Your task to perform on an android device: Clear the shopping cart on amazon. Search for logitech g903 on amazon, select the first entry, add it to the cart, then select checkout. Image 0: 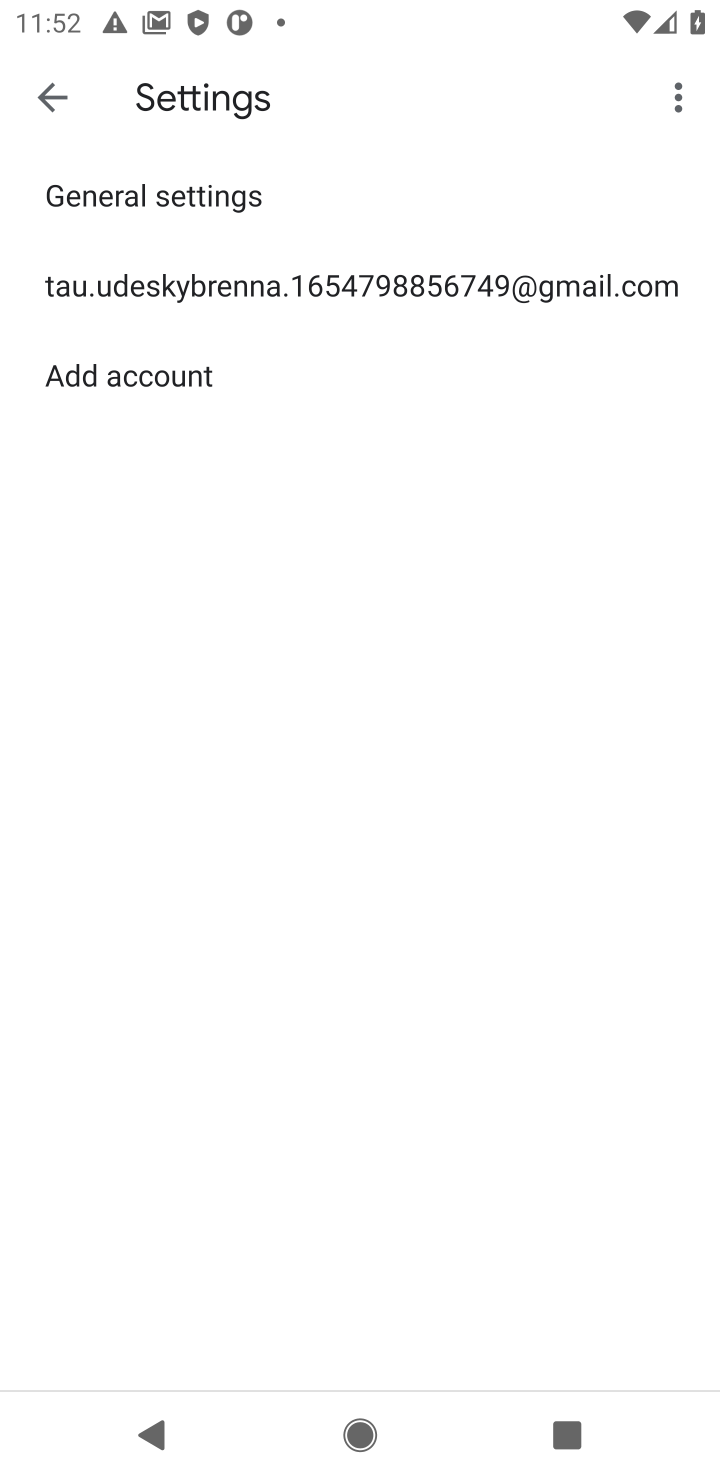
Step 0: press home button
Your task to perform on an android device: Clear the shopping cart on amazon. Search for logitech g903 on amazon, select the first entry, add it to the cart, then select checkout. Image 1: 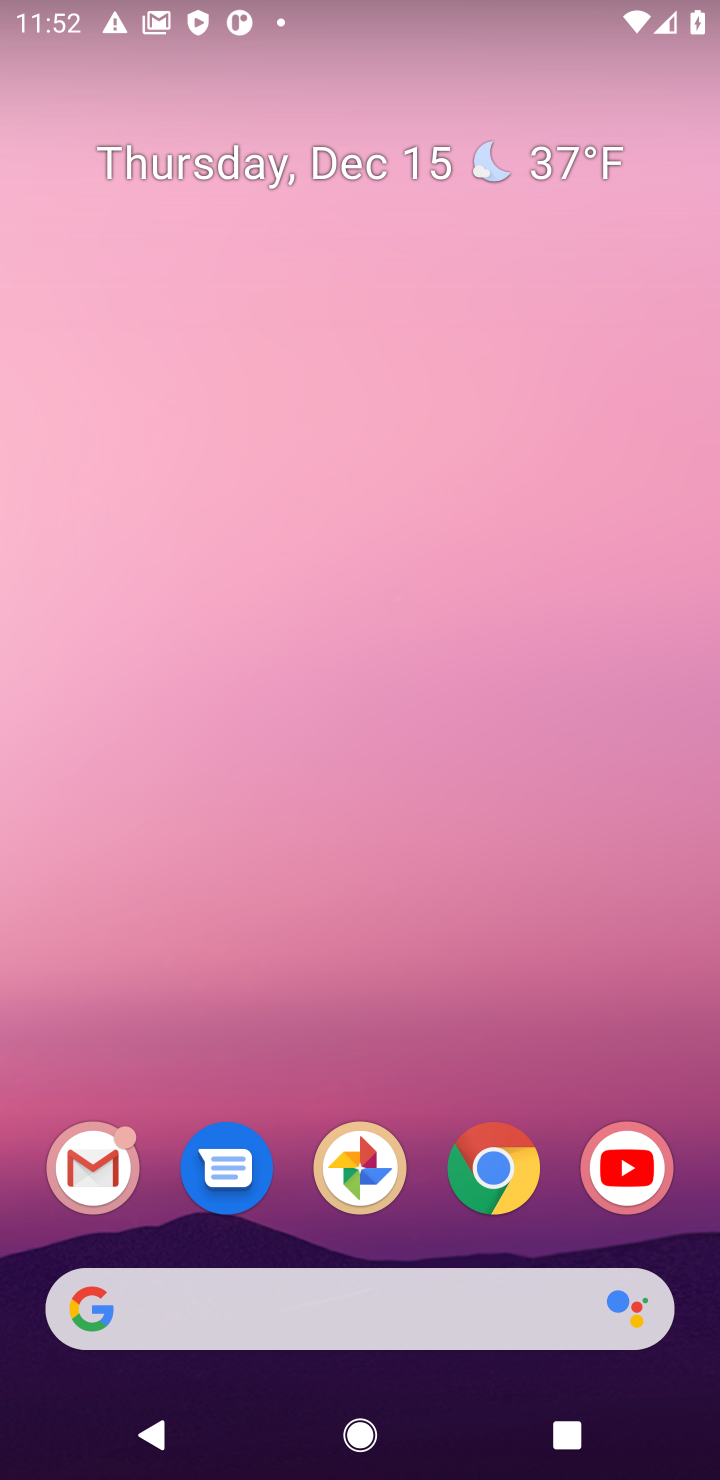
Step 1: click (502, 1153)
Your task to perform on an android device: Clear the shopping cart on amazon. Search for logitech g903 on amazon, select the first entry, add it to the cart, then select checkout. Image 2: 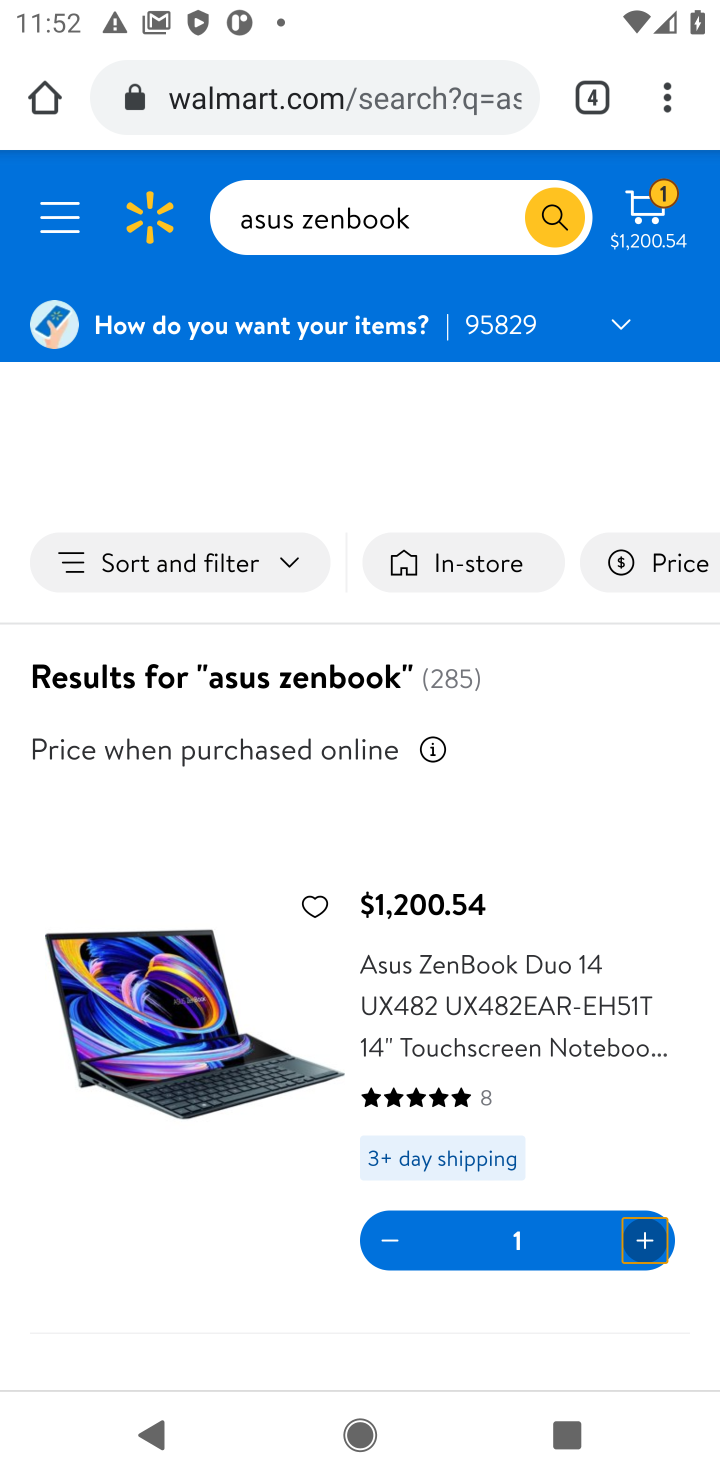
Step 2: click (387, 96)
Your task to perform on an android device: Clear the shopping cart on amazon. Search for logitech g903 on amazon, select the first entry, add it to the cart, then select checkout. Image 3: 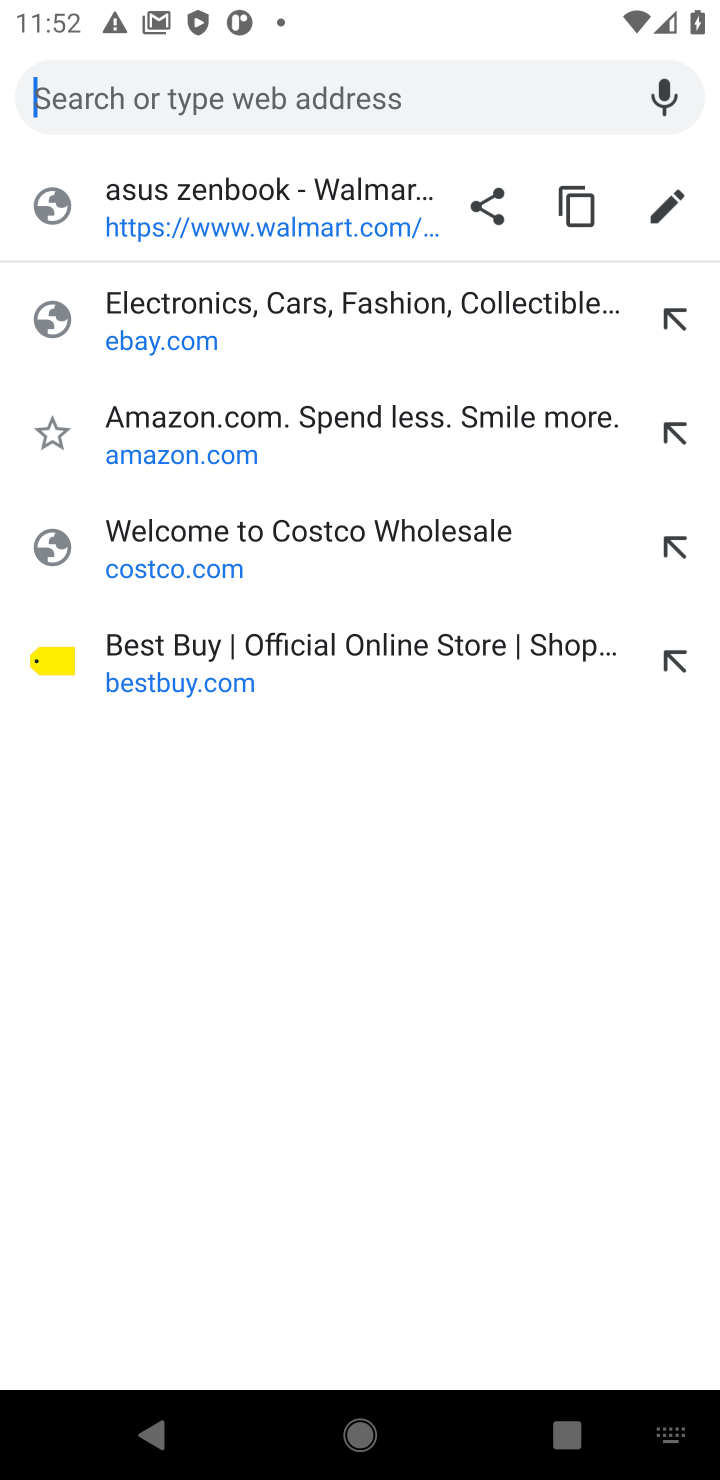
Step 3: click (274, 433)
Your task to perform on an android device: Clear the shopping cart on amazon. Search for logitech g903 on amazon, select the first entry, add it to the cart, then select checkout. Image 4: 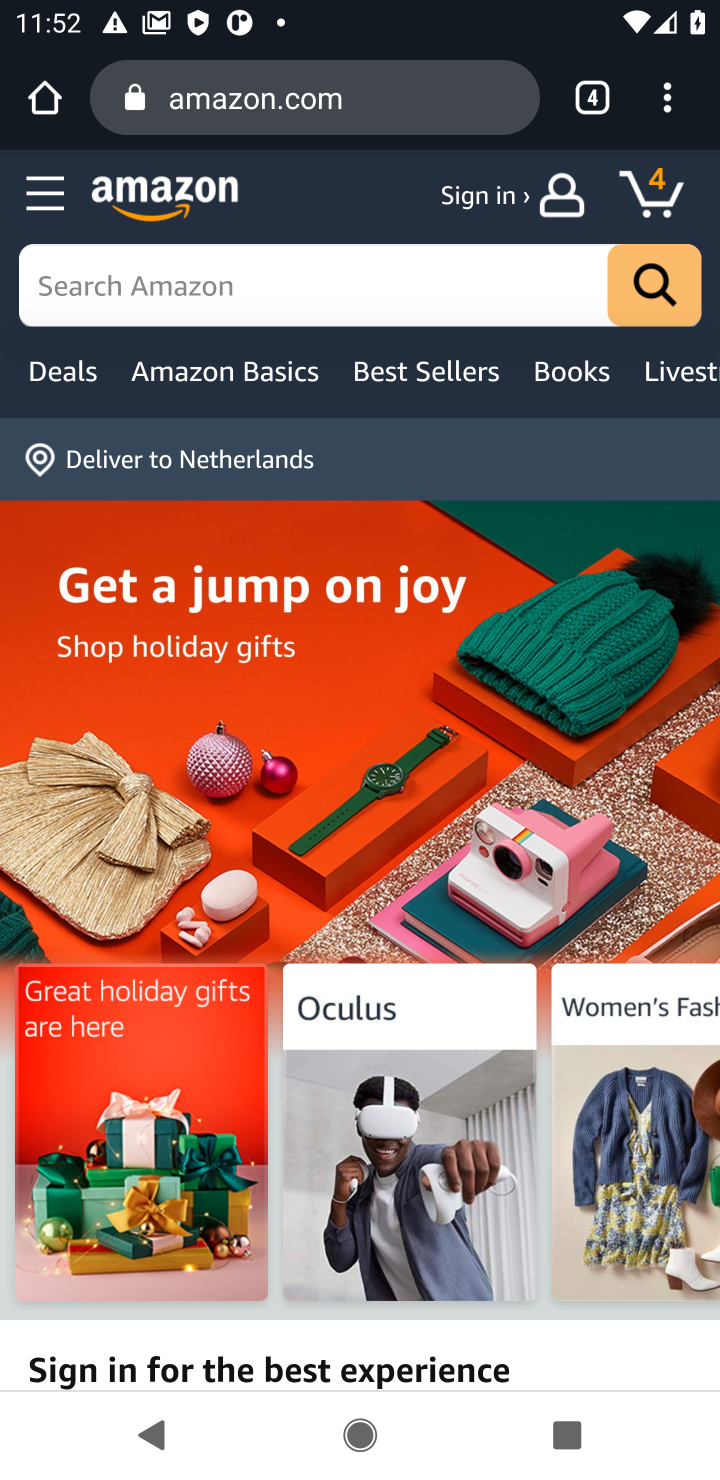
Step 4: click (651, 179)
Your task to perform on an android device: Clear the shopping cart on amazon. Search for logitech g903 on amazon, select the first entry, add it to the cart, then select checkout. Image 5: 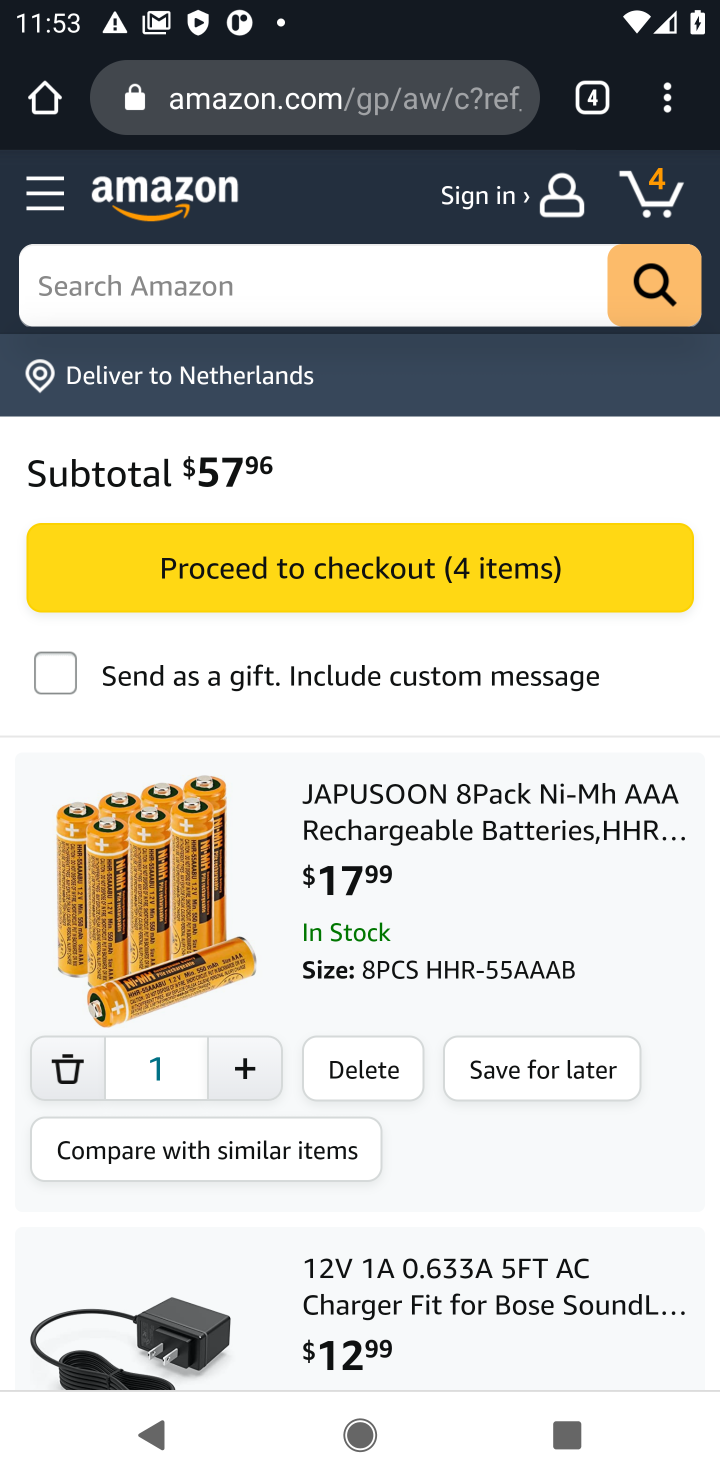
Step 5: click (57, 1070)
Your task to perform on an android device: Clear the shopping cart on amazon. Search for logitech g903 on amazon, select the first entry, add it to the cart, then select checkout. Image 6: 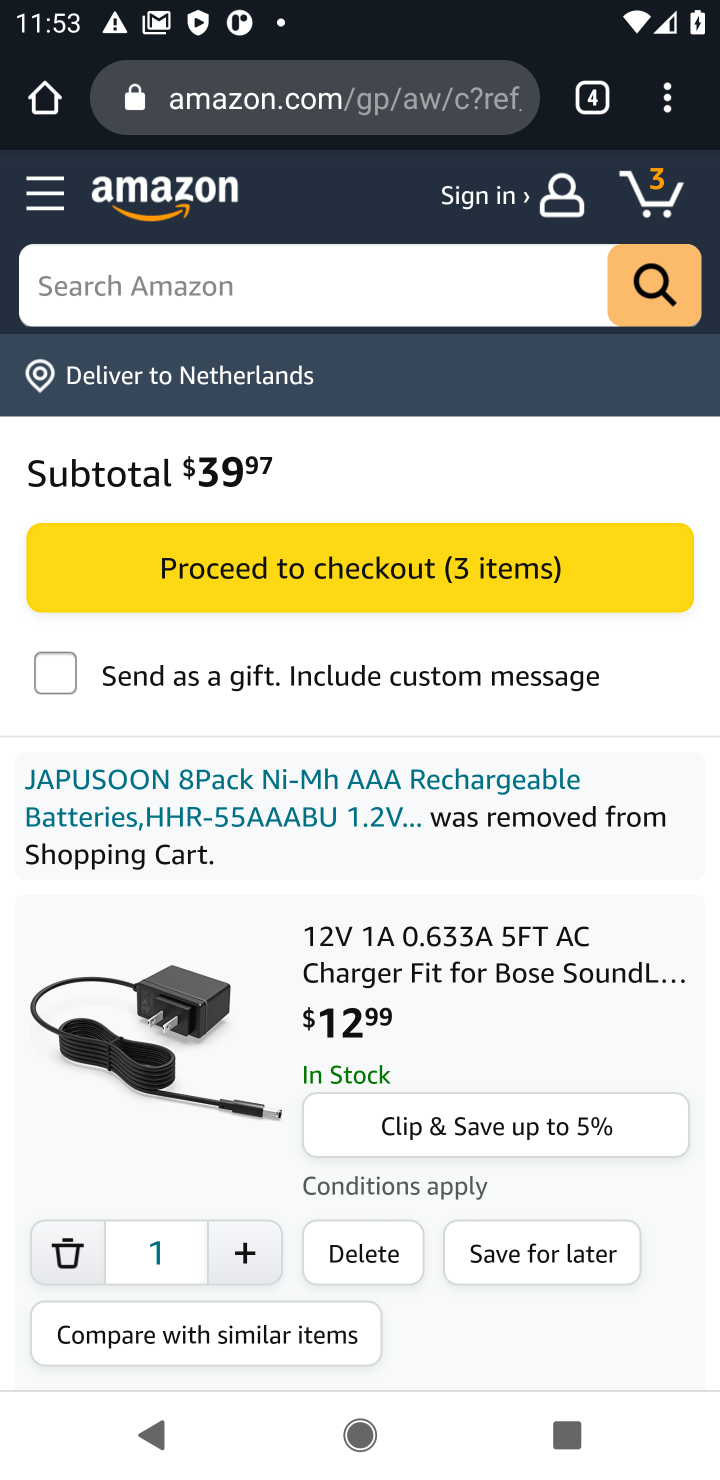
Step 6: click (59, 1250)
Your task to perform on an android device: Clear the shopping cart on amazon. Search for logitech g903 on amazon, select the first entry, add it to the cart, then select checkout. Image 7: 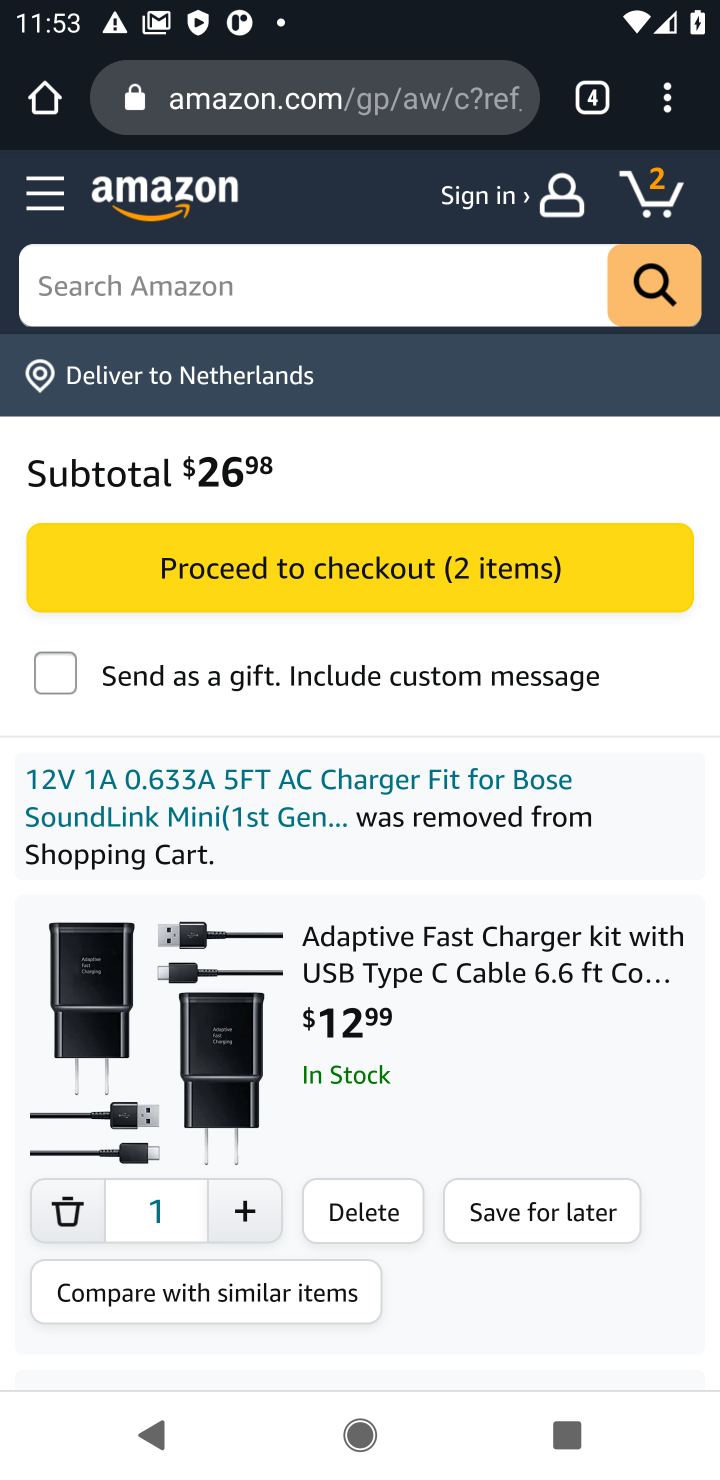
Step 7: click (59, 1219)
Your task to perform on an android device: Clear the shopping cart on amazon. Search for logitech g903 on amazon, select the first entry, add it to the cart, then select checkout. Image 8: 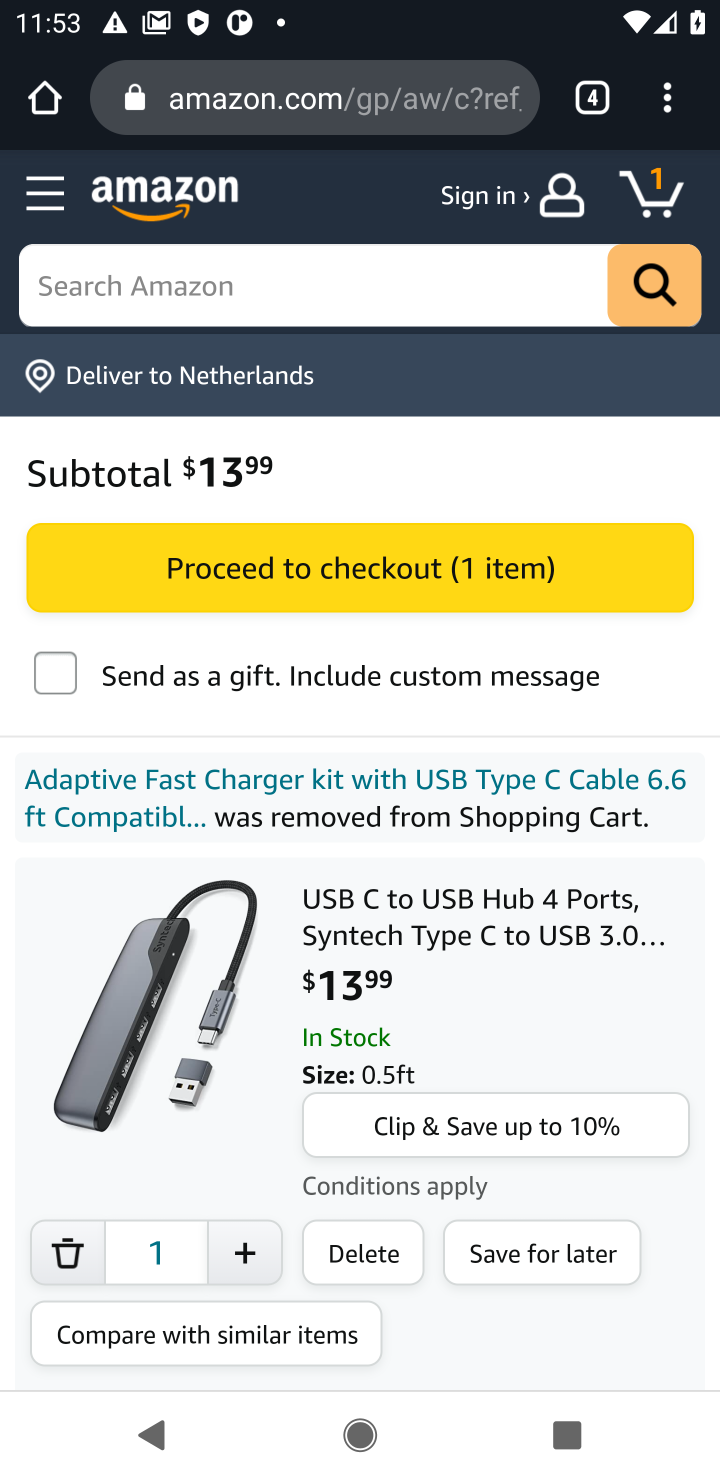
Step 8: click (72, 1263)
Your task to perform on an android device: Clear the shopping cart on amazon. Search for logitech g903 on amazon, select the first entry, add it to the cart, then select checkout. Image 9: 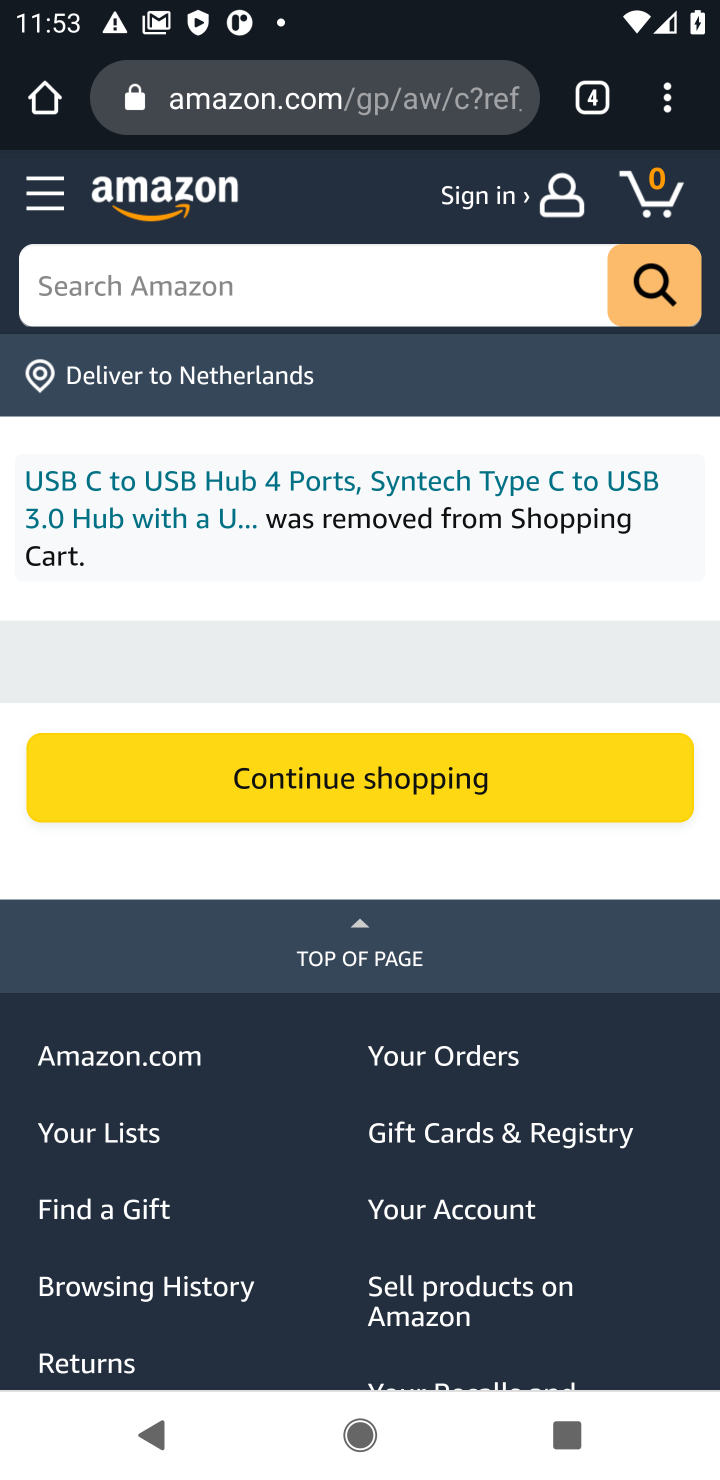
Step 9: click (305, 298)
Your task to perform on an android device: Clear the shopping cart on amazon. Search for logitech g903 on amazon, select the first entry, add it to the cart, then select checkout. Image 10: 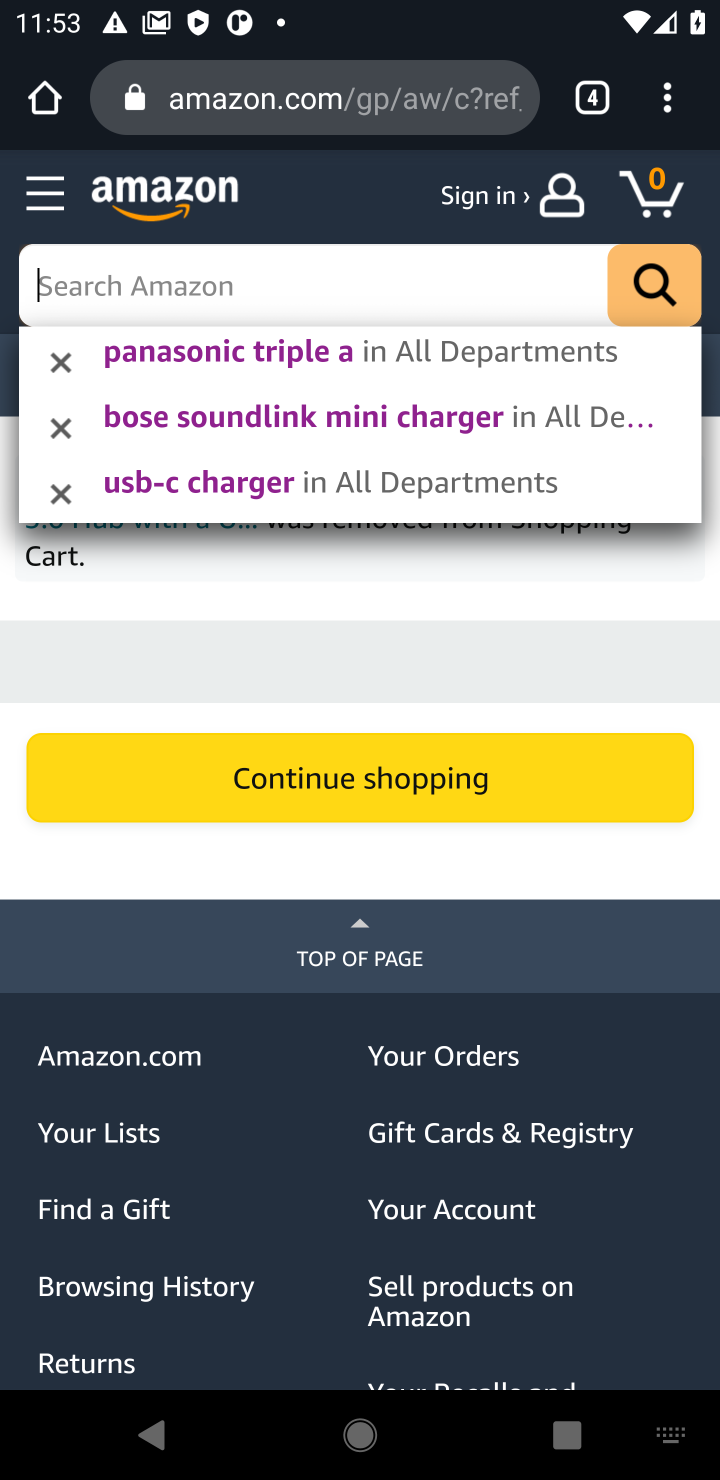
Step 10: type "logitech g903"
Your task to perform on an android device: Clear the shopping cart on amazon. Search for logitech g903 on amazon, select the first entry, add it to the cart, then select checkout. Image 11: 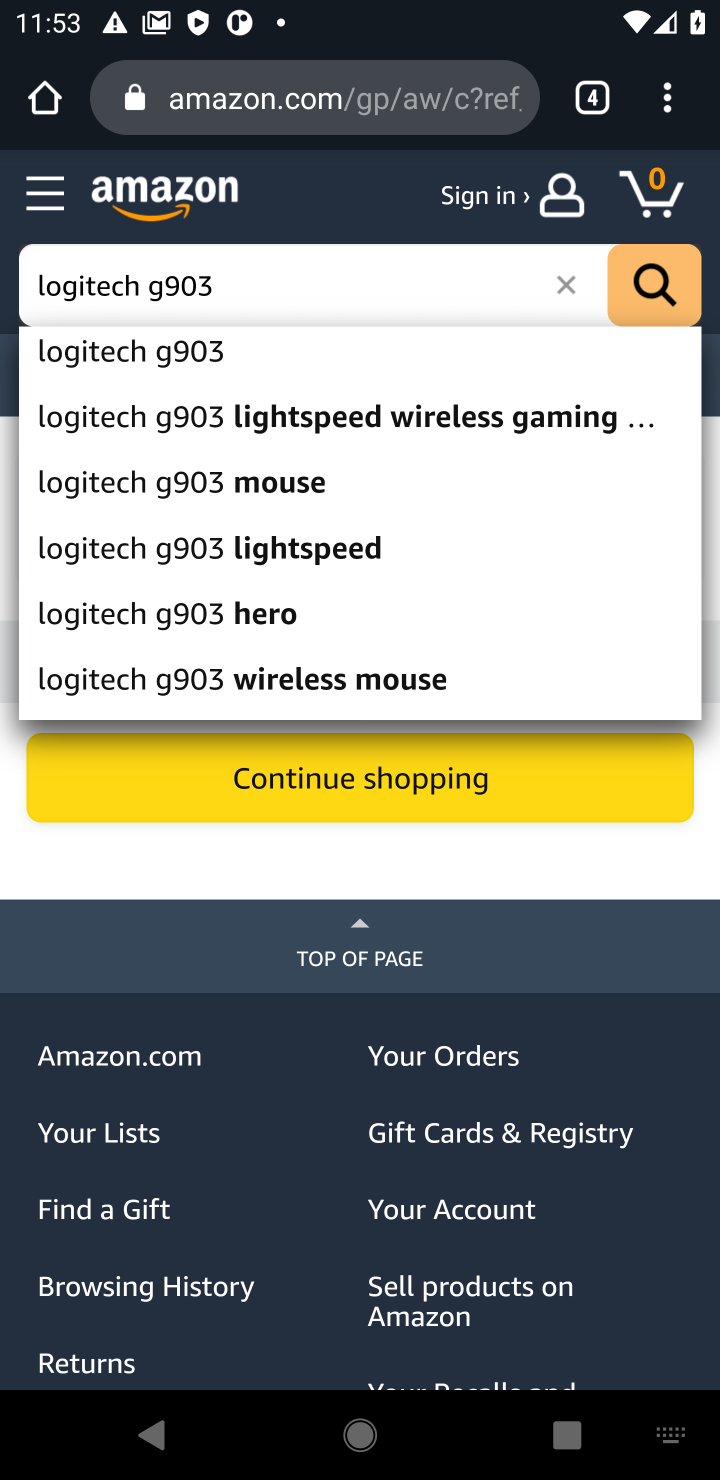
Step 11: click (161, 355)
Your task to perform on an android device: Clear the shopping cart on amazon. Search for logitech g903 on amazon, select the first entry, add it to the cart, then select checkout. Image 12: 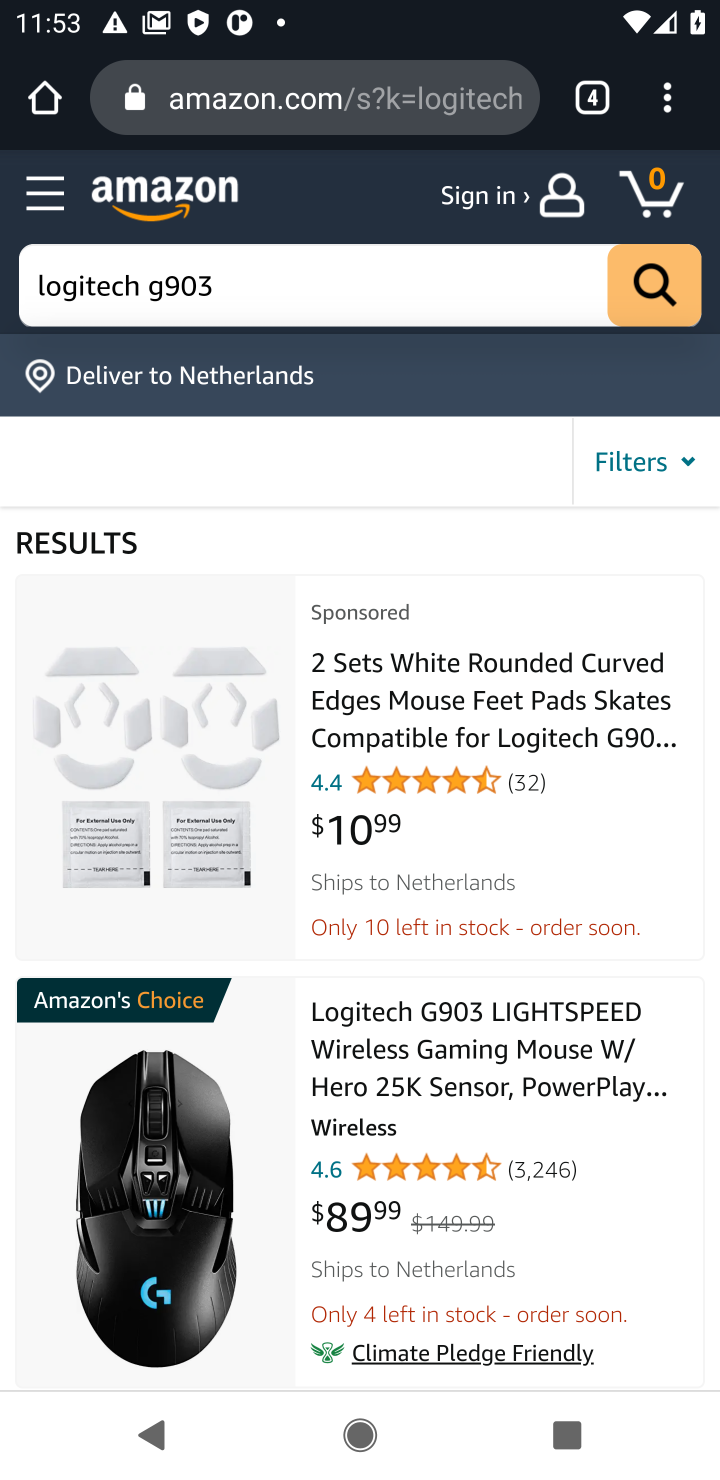
Step 12: click (533, 722)
Your task to perform on an android device: Clear the shopping cart on amazon. Search for logitech g903 on amazon, select the first entry, add it to the cart, then select checkout. Image 13: 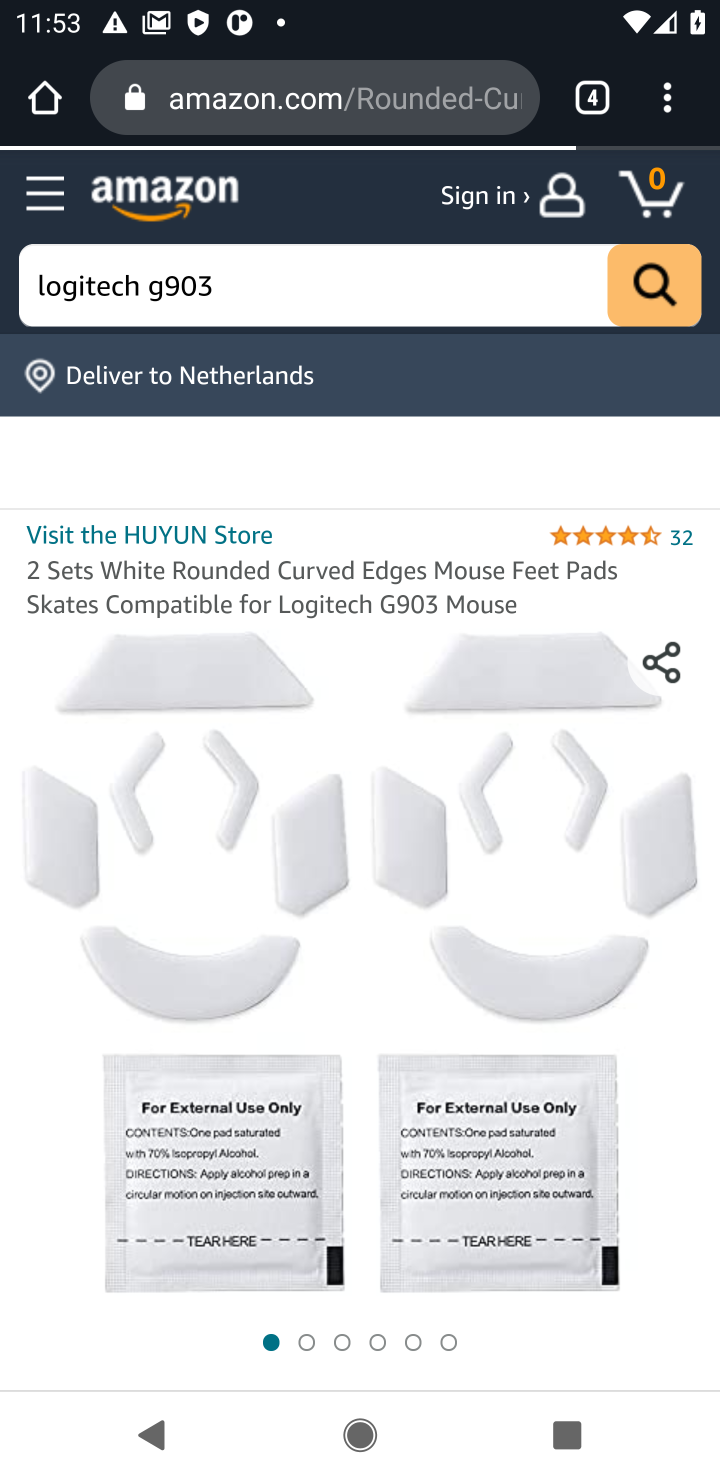
Step 13: drag from (445, 1123) to (365, 491)
Your task to perform on an android device: Clear the shopping cart on amazon. Search for logitech g903 on amazon, select the first entry, add it to the cart, then select checkout. Image 14: 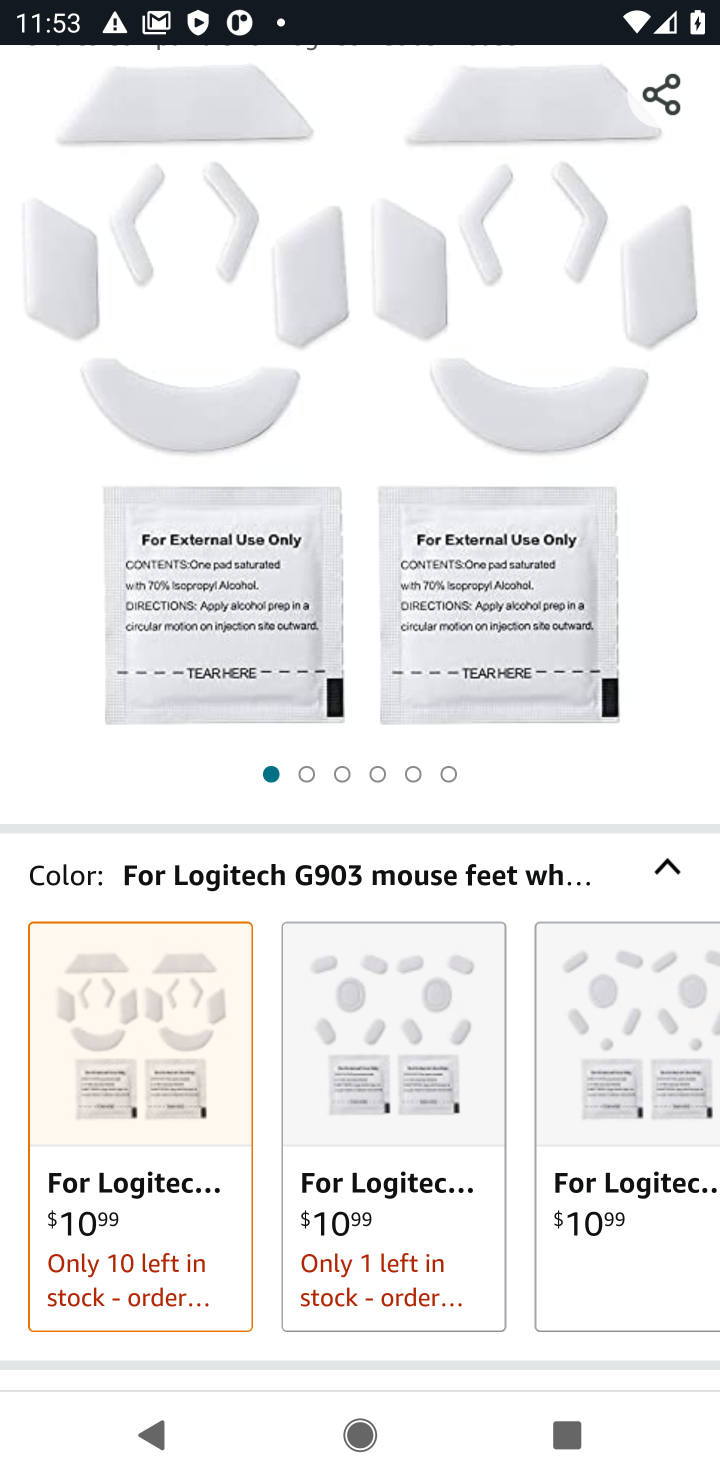
Step 14: drag from (537, 1349) to (427, 581)
Your task to perform on an android device: Clear the shopping cart on amazon. Search for logitech g903 on amazon, select the first entry, add it to the cart, then select checkout. Image 15: 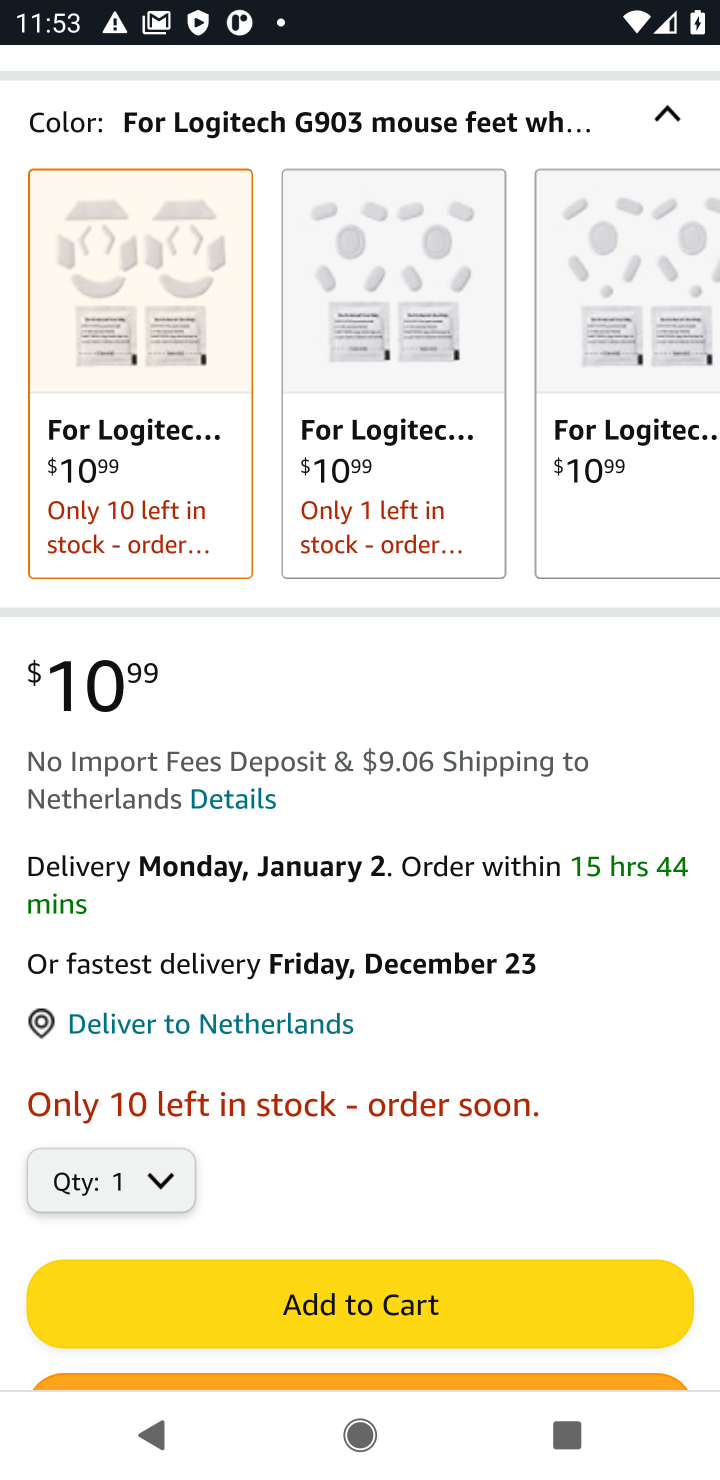
Step 15: click (409, 1295)
Your task to perform on an android device: Clear the shopping cart on amazon. Search for logitech g903 on amazon, select the first entry, add it to the cart, then select checkout. Image 16: 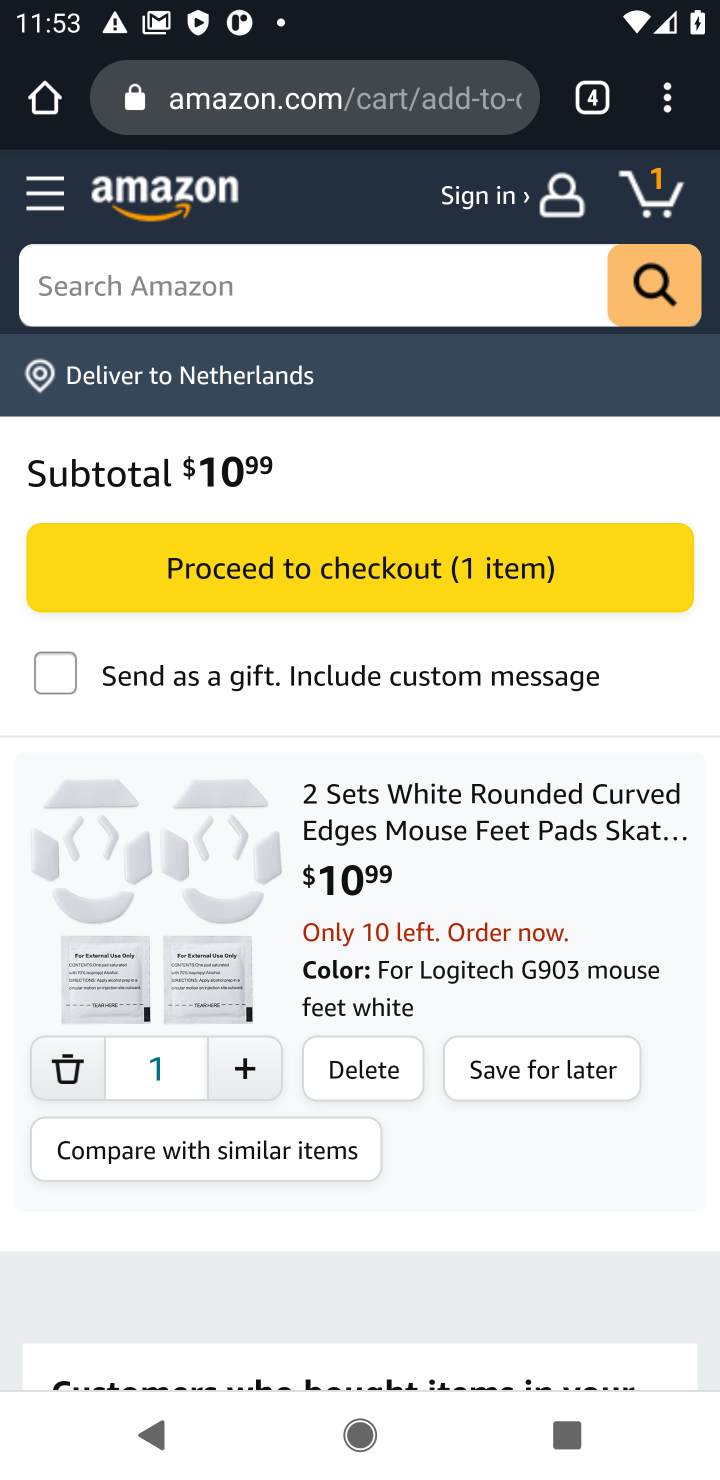
Step 16: click (503, 585)
Your task to perform on an android device: Clear the shopping cart on amazon. Search for logitech g903 on amazon, select the first entry, add it to the cart, then select checkout. Image 17: 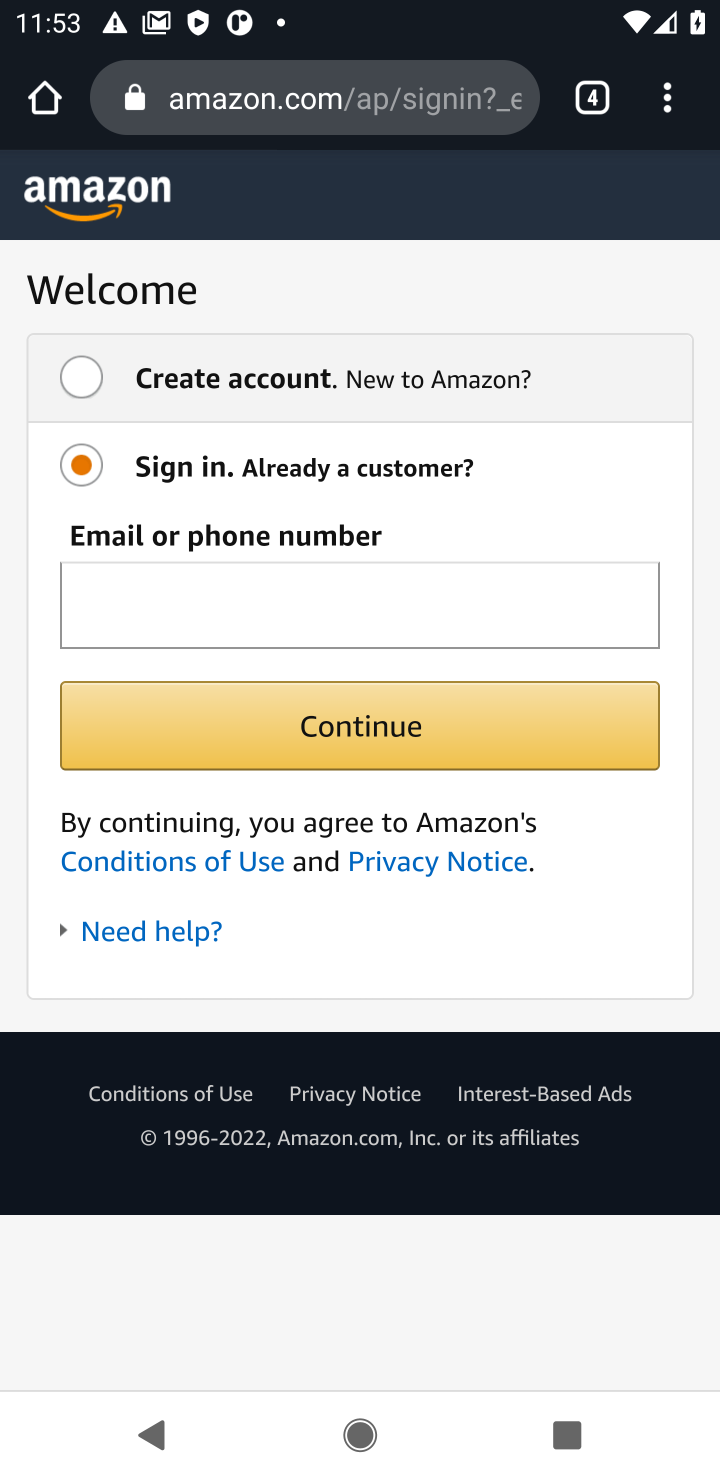
Step 17: task complete